Your task to perform on an android device: Search for Mexican restaurants on Maps Image 0: 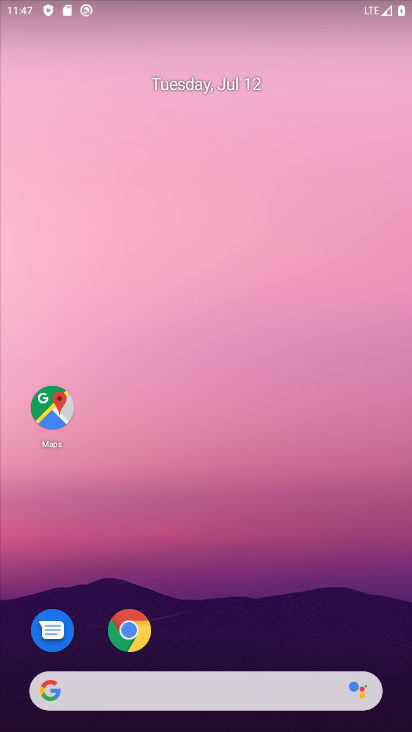
Step 0: drag from (390, 662) to (123, 52)
Your task to perform on an android device: Search for Mexican restaurants on Maps Image 1: 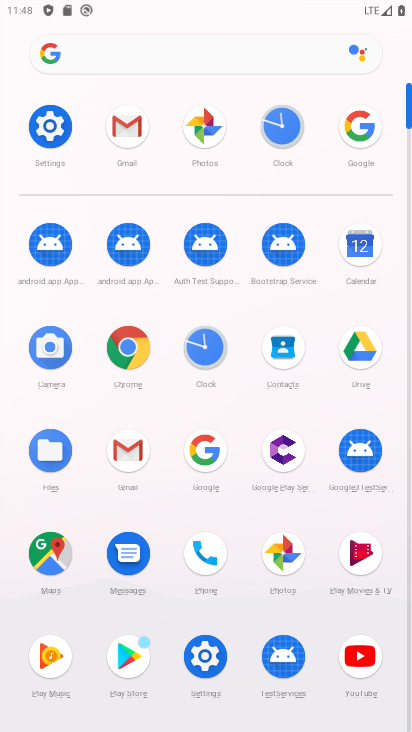
Step 1: click (48, 558)
Your task to perform on an android device: Search for Mexican restaurants on Maps Image 2: 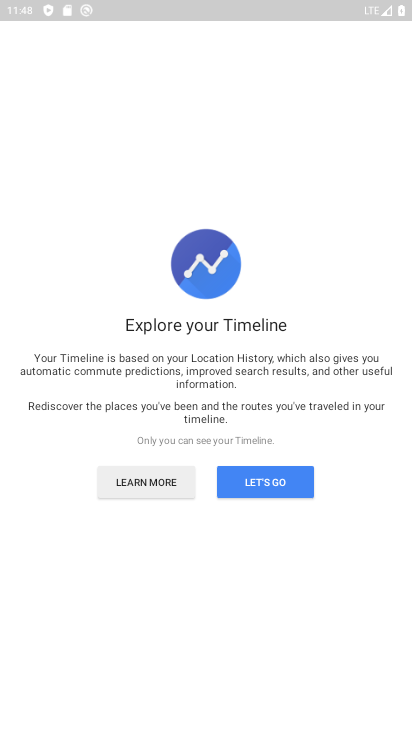
Step 2: press back button
Your task to perform on an android device: Search for Mexican restaurants on Maps Image 3: 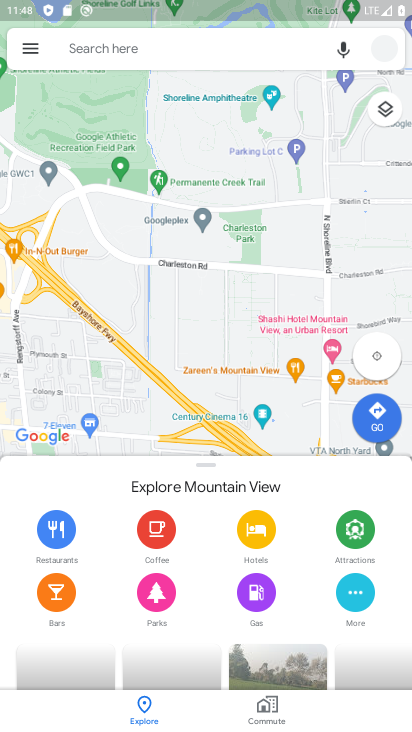
Step 3: click (158, 52)
Your task to perform on an android device: Search for Mexican restaurants on Maps Image 4: 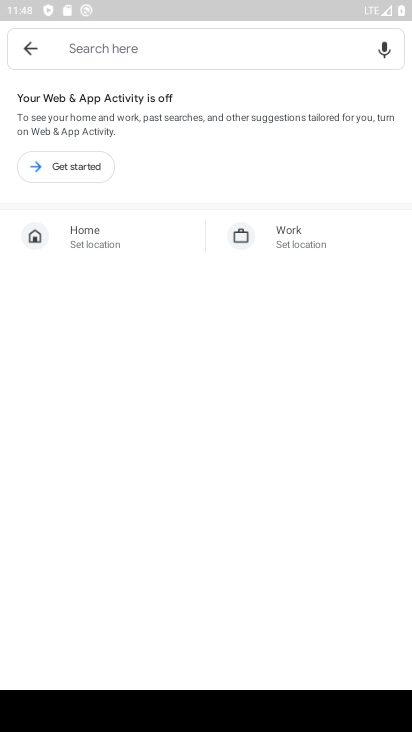
Step 4: click (73, 164)
Your task to perform on an android device: Search for Mexican restaurants on Maps Image 5: 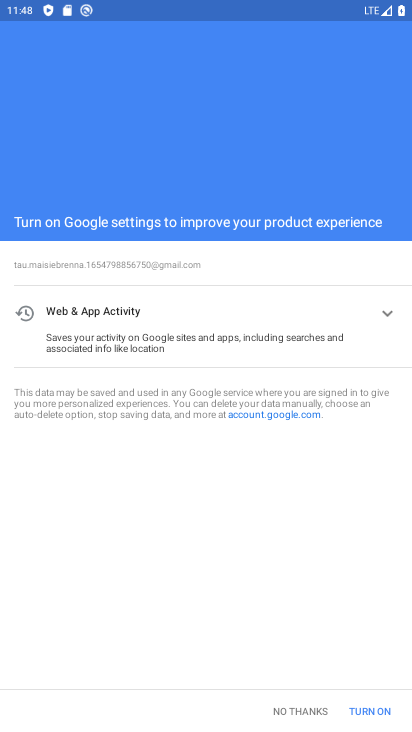
Step 5: press back button
Your task to perform on an android device: Search for Mexican restaurants on Maps Image 6: 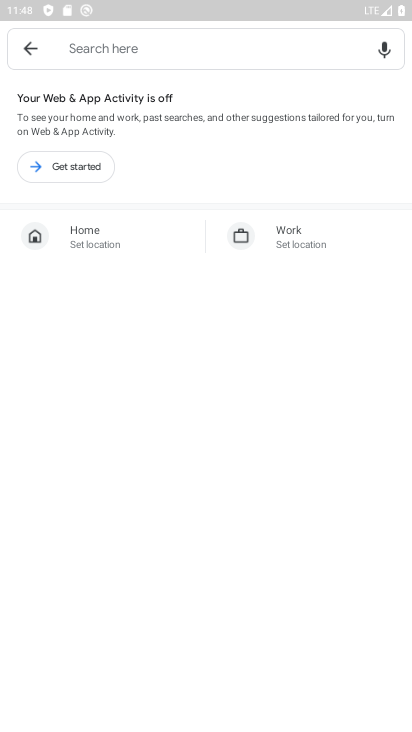
Step 6: click (78, 168)
Your task to perform on an android device: Search for Mexican restaurants on Maps Image 7: 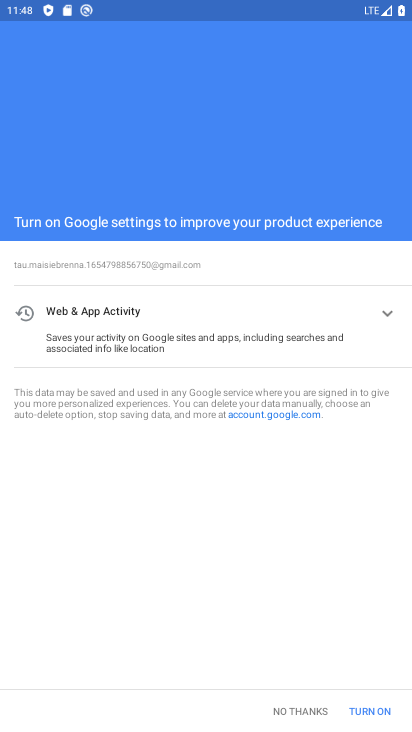
Step 7: click (376, 715)
Your task to perform on an android device: Search for Mexican restaurants on Maps Image 8: 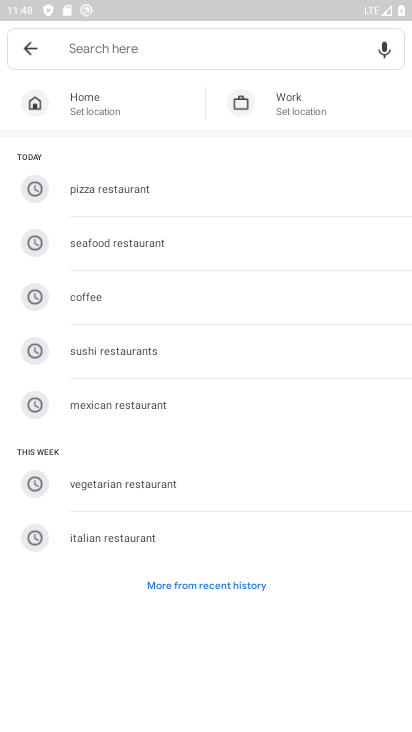
Step 8: click (127, 410)
Your task to perform on an android device: Search for Mexican restaurants on Maps Image 9: 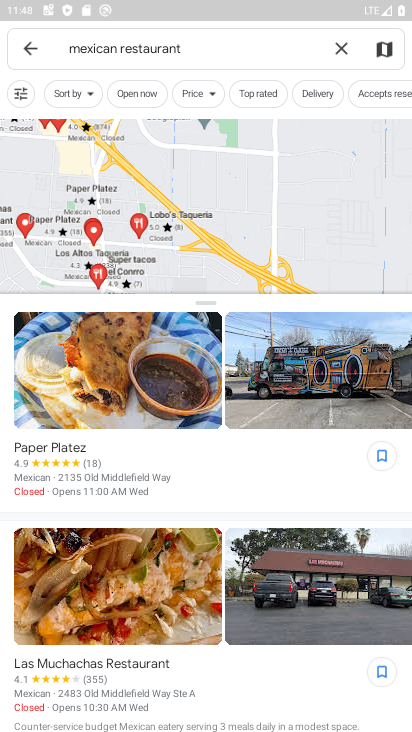
Step 9: task complete